Your task to perform on an android device: turn off translation in the chrome app Image 0: 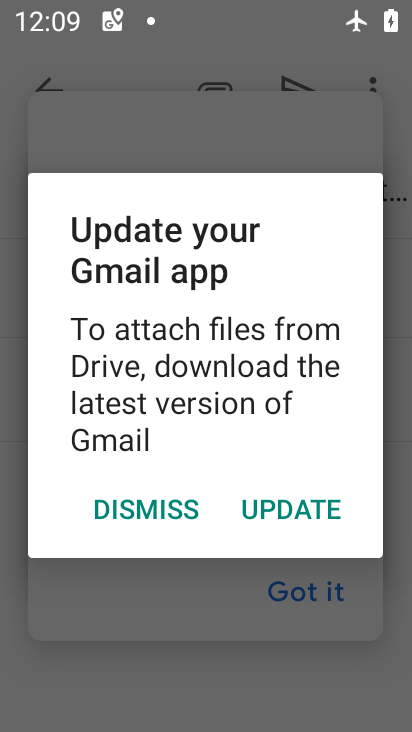
Step 0: press home button
Your task to perform on an android device: turn off translation in the chrome app Image 1: 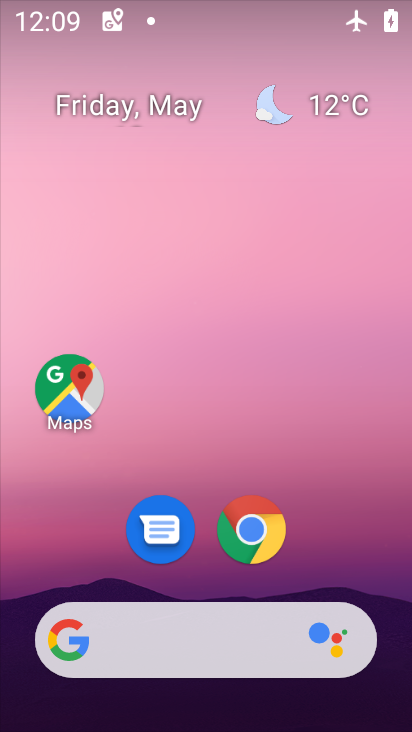
Step 1: drag from (346, 564) to (336, 366)
Your task to perform on an android device: turn off translation in the chrome app Image 2: 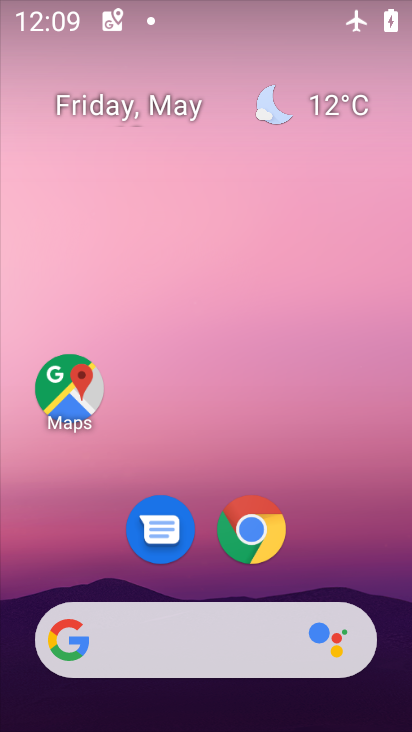
Step 2: drag from (263, 432) to (283, 115)
Your task to perform on an android device: turn off translation in the chrome app Image 3: 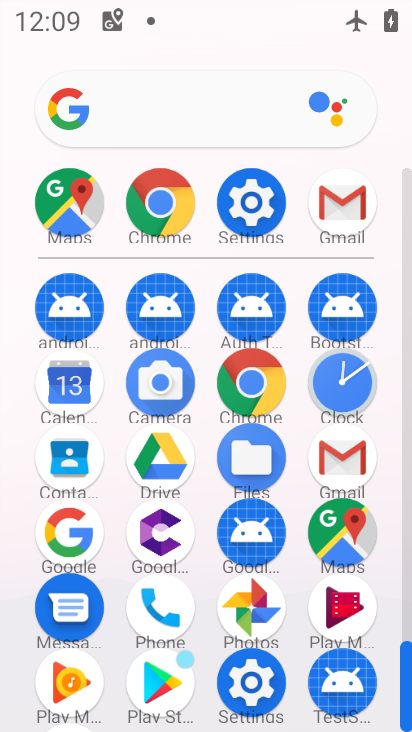
Step 3: click (142, 188)
Your task to perform on an android device: turn off translation in the chrome app Image 4: 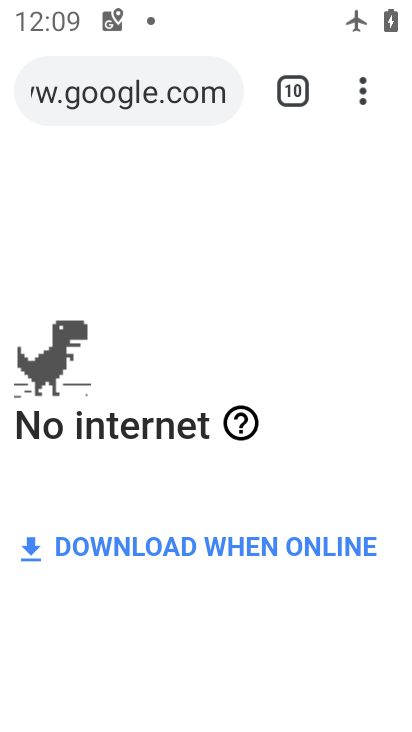
Step 4: click (338, 96)
Your task to perform on an android device: turn off translation in the chrome app Image 5: 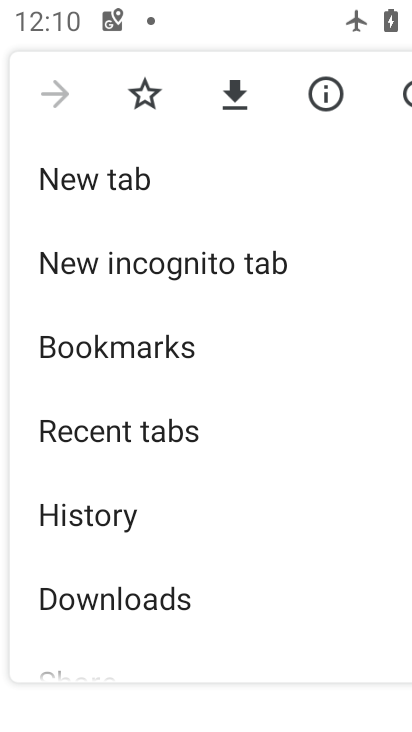
Step 5: drag from (177, 596) to (180, 252)
Your task to perform on an android device: turn off translation in the chrome app Image 6: 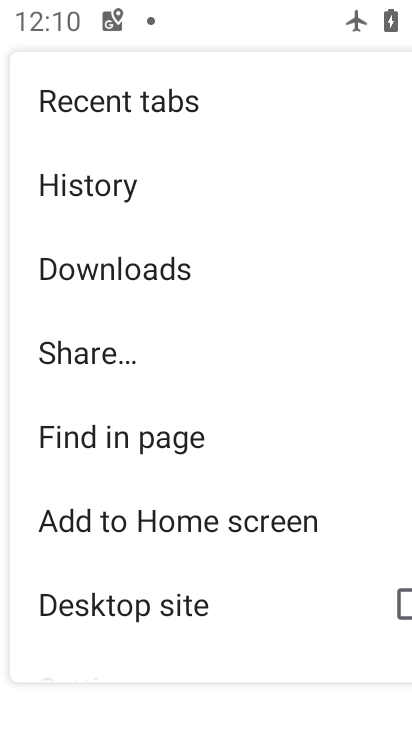
Step 6: drag from (166, 461) to (204, 142)
Your task to perform on an android device: turn off translation in the chrome app Image 7: 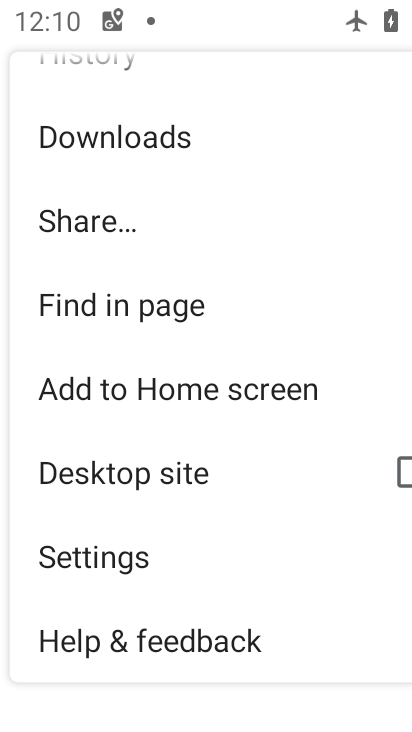
Step 7: click (102, 553)
Your task to perform on an android device: turn off translation in the chrome app Image 8: 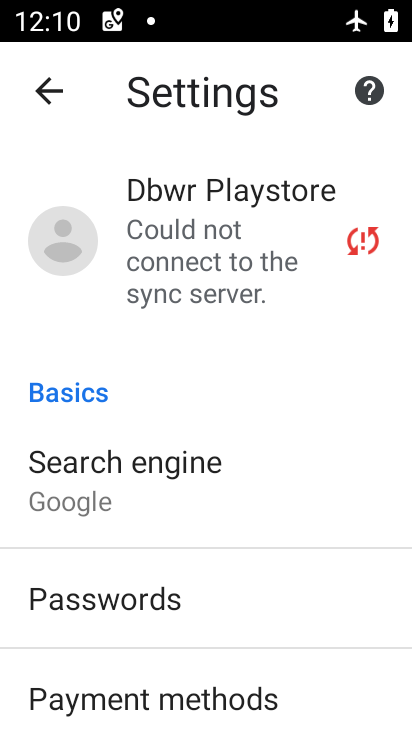
Step 8: drag from (223, 634) to (266, 122)
Your task to perform on an android device: turn off translation in the chrome app Image 9: 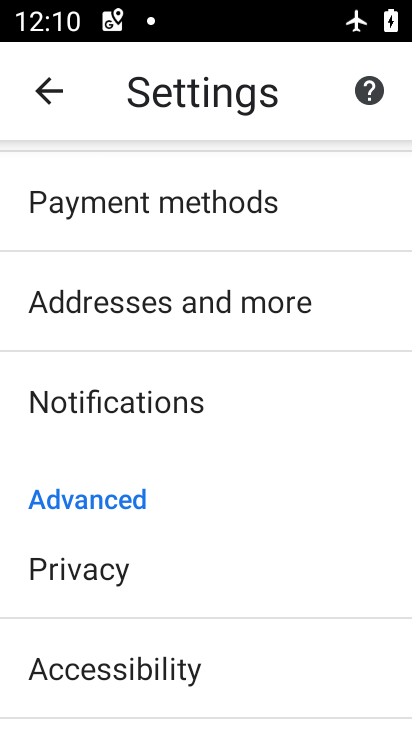
Step 9: drag from (210, 592) to (256, 208)
Your task to perform on an android device: turn off translation in the chrome app Image 10: 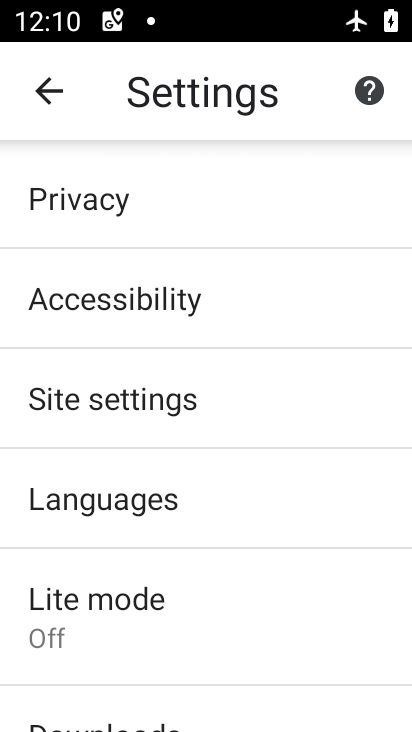
Step 10: click (83, 488)
Your task to perform on an android device: turn off translation in the chrome app Image 11: 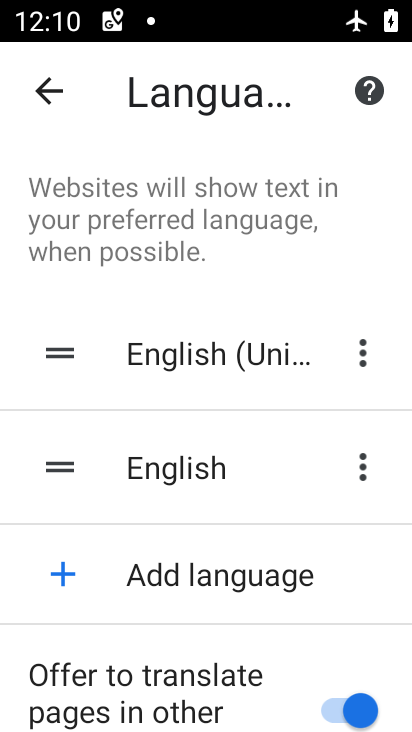
Step 11: drag from (289, 620) to (284, 537)
Your task to perform on an android device: turn off translation in the chrome app Image 12: 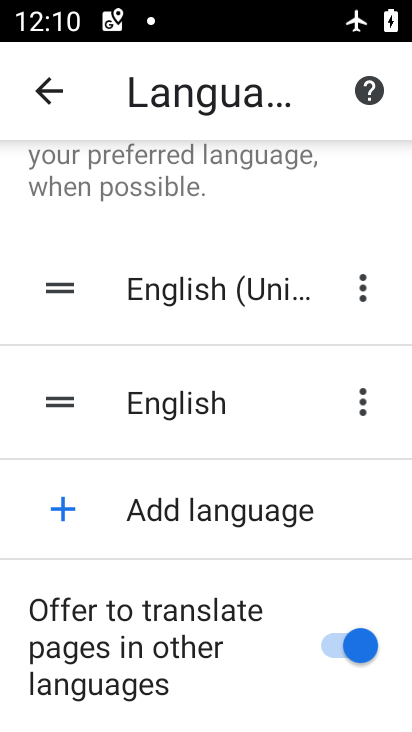
Step 12: click (320, 645)
Your task to perform on an android device: turn off translation in the chrome app Image 13: 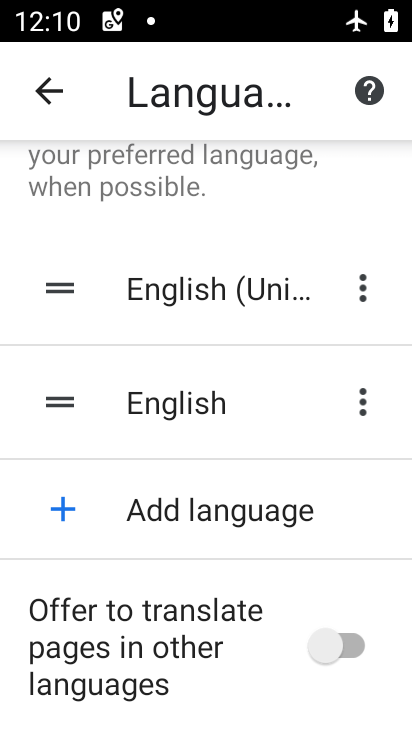
Step 13: task complete